Your task to perform on an android device: Check the settings for the Google Photos app Image 0: 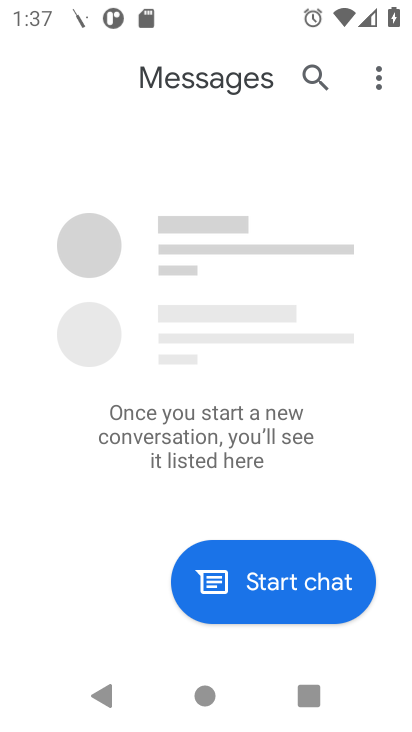
Step 0: press home button
Your task to perform on an android device: Check the settings for the Google Photos app Image 1: 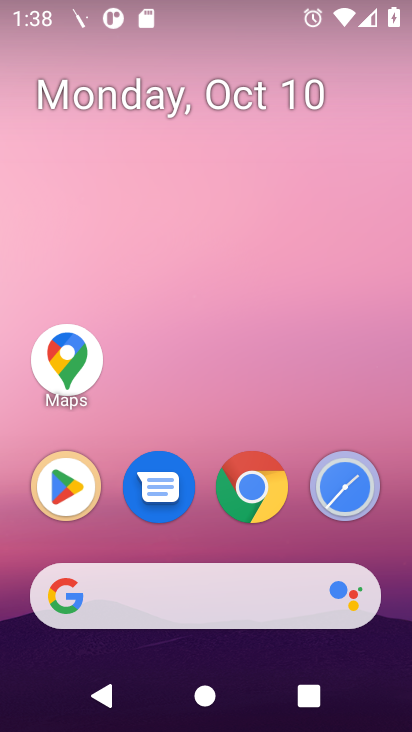
Step 1: click (257, 498)
Your task to perform on an android device: Check the settings for the Google Photos app Image 2: 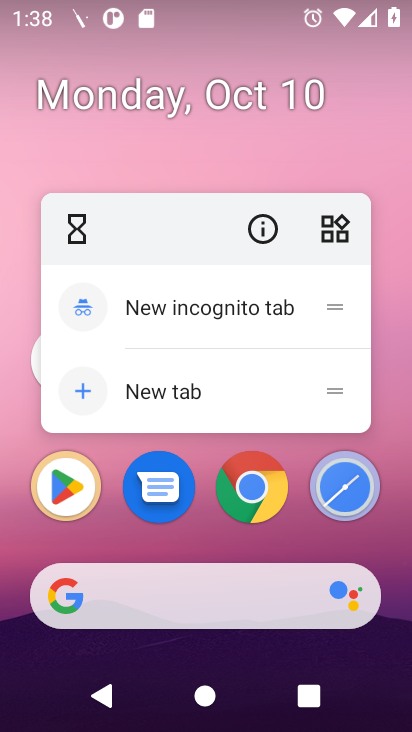
Step 2: drag from (205, 612) to (161, 144)
Your task to perform on an android device: Check the settings for the Google Photos app Image 3: 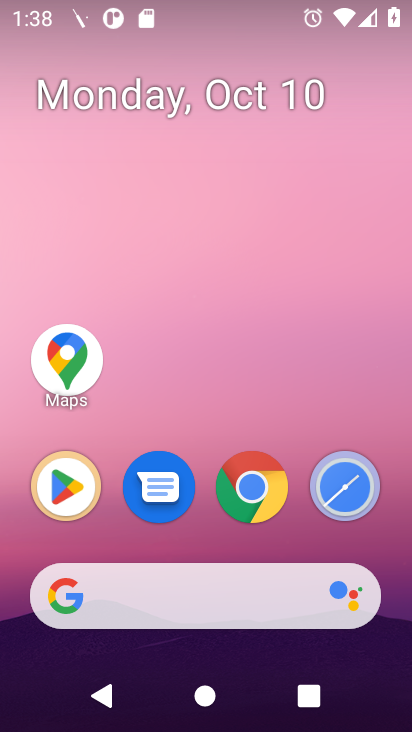
Step 3: drag from (223, 645) to (185, 145)
Your task to perform on an android device: Check the settings for the Google Photos app Image 4: 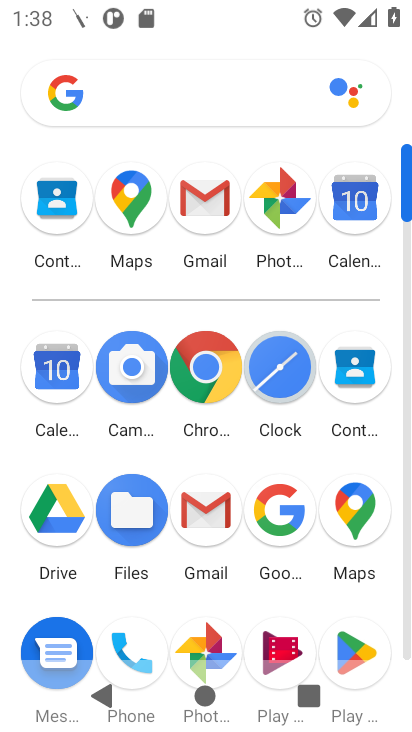
Step 4: drag from (192, 658) to (163, 308)
Your task to perform on an android device: Check the settings for the Google Photos app Image 5: 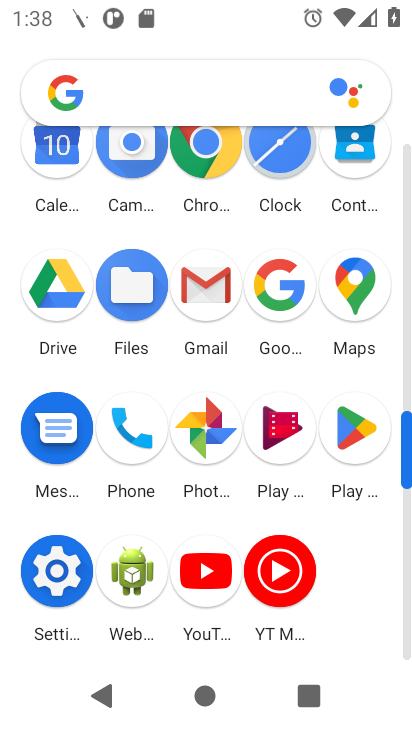
Step 5: click (63, 563)
Your task to perform on an android device: Check the settings for the Google Photos app Image 6: 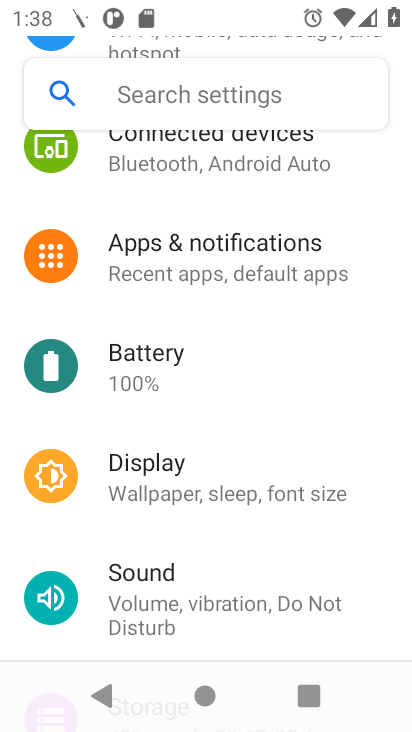
Step 6: click (187, 259)
Your task to perform on an android device: Check the settings for the Google Photos app Image 7: 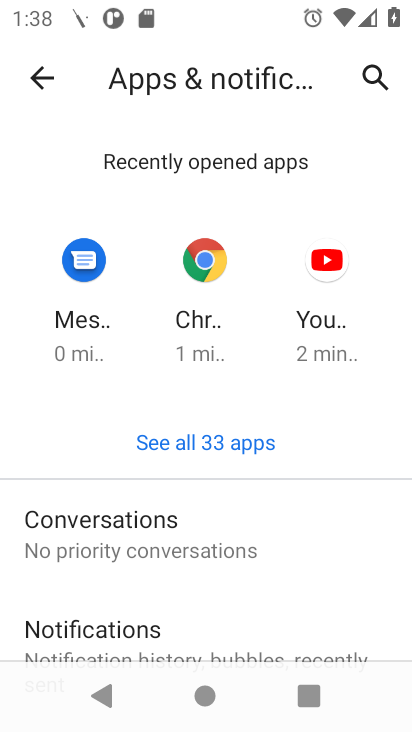
Step 7: click (227, 438)
Your task to perform on an android device: Check the settings for the Google Photos app Image 8: 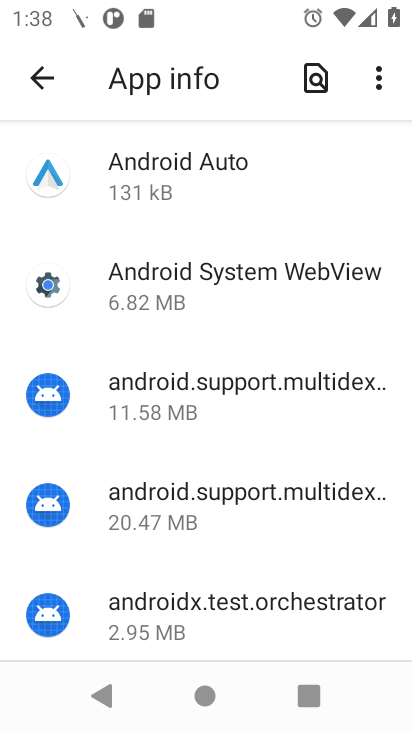
Step 8: drag from (280, 569) to (235, 136)
Your task to perform on an android device: Check the settings for the Google Photos app Image 9: 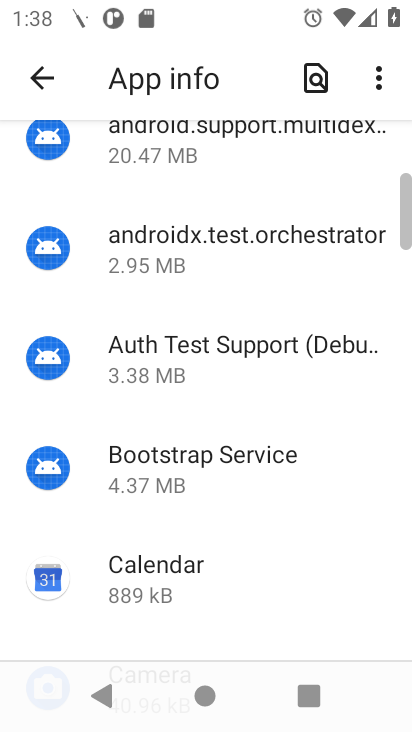
Step 9: drag from (285, 529) to (230, 132)
Your task to perform on an android device: Check the settings for the Google Photos app Image 10: 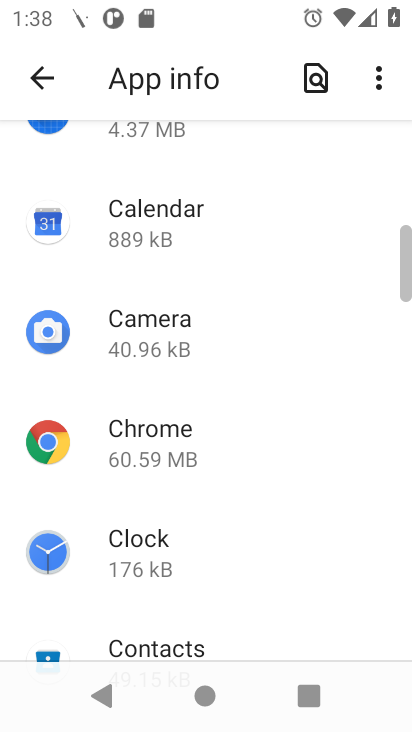
Step 10: drag from (267, 539) to (207, 119)
Your task to perform on an android device: Check the settings for the Google Photos app Image 11: 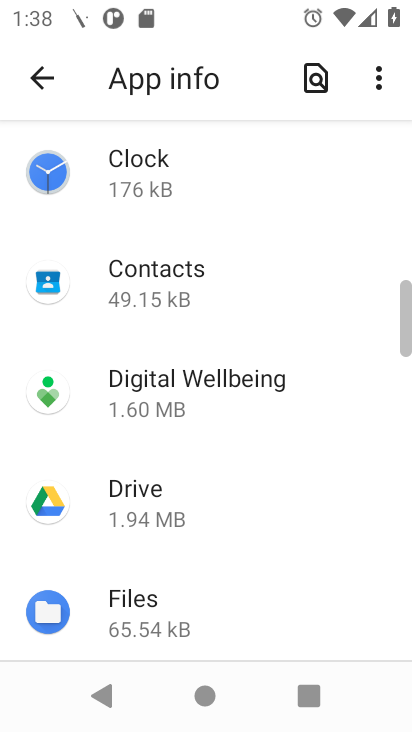
Step 11: drag from (257, 513) to (186, 245)
Your task to perform on an android device: Check the settings for the Google Photos app Image 12: 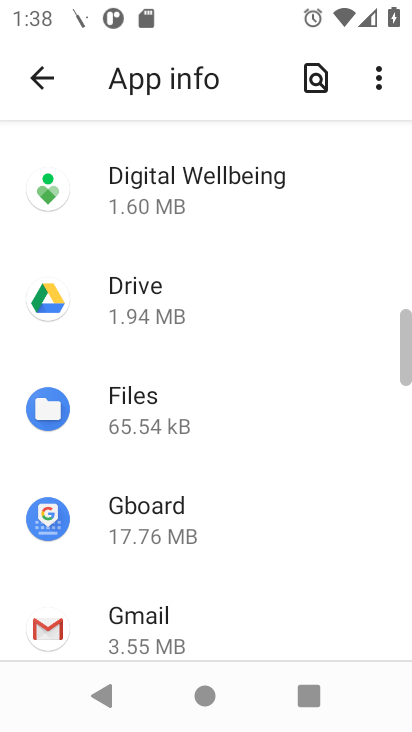
Step 12: drag from (273, 569) to (220, 243)
Your task to perform on an android device: Check the settings for the Google Photos app Image 13: 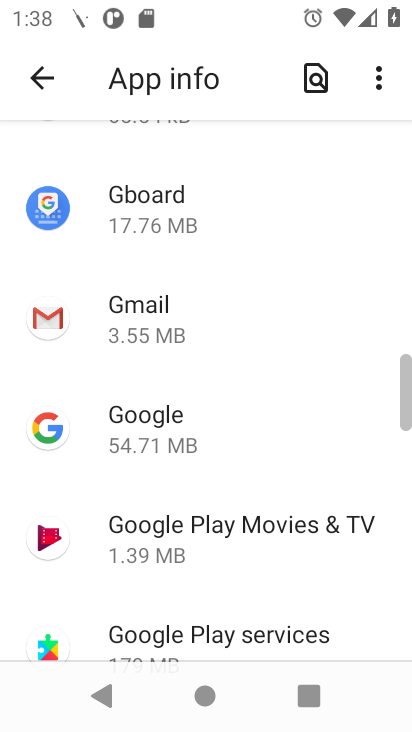
Step 13: drag from (253, 563) to (214, 214)
Your task to perform on an android device: Check the settings for the Google Photos app Image 14: 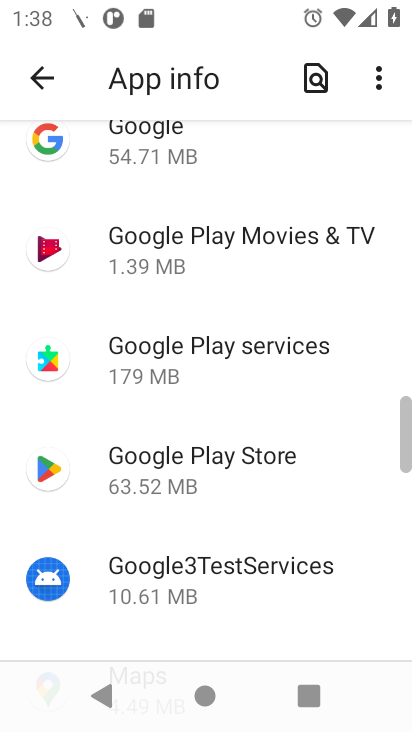
Step 14: drag from (269, 600) to (242, 283)
Your task to perform on an android device: Check the settings for the Google Photos app Image 15: 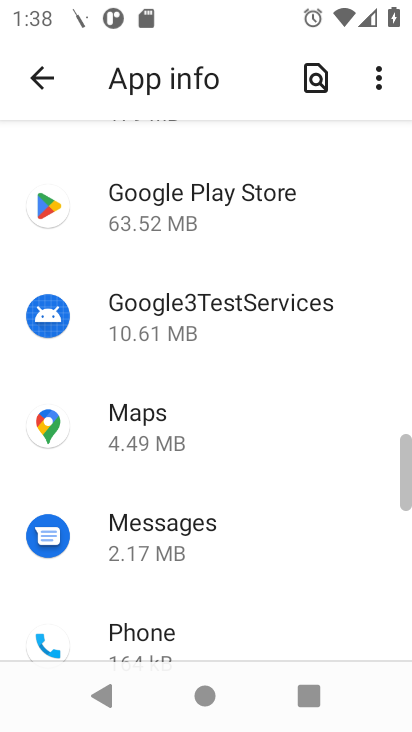
Step 15: drag from (271, 567) to (238, 260)
Your task to perform on an android device: Check the settings for the Google Photos app Image 16: 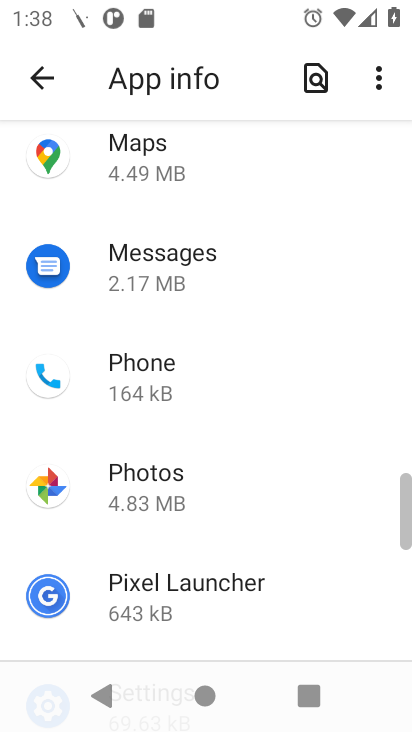
Step 16: click (186, 494)
Your task to perform on an android device: Check the settings for the Google Photos app Image 17: 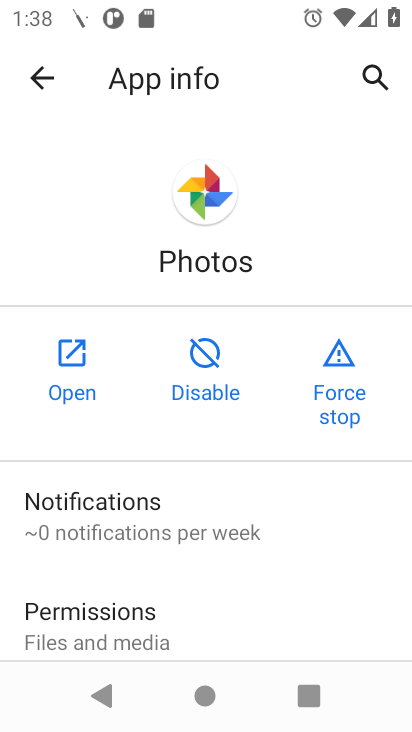
Step 17: click (137, 519)
Your task to perform on an android device: Check the settings for the Google Photos app Image 18: 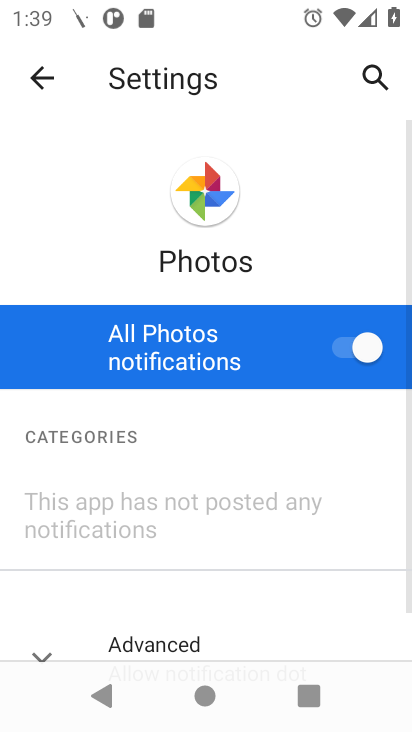
Step 18: click (355, 349)
Your task to perform on an android device: Check the settings for the Google Photos app Image 19: 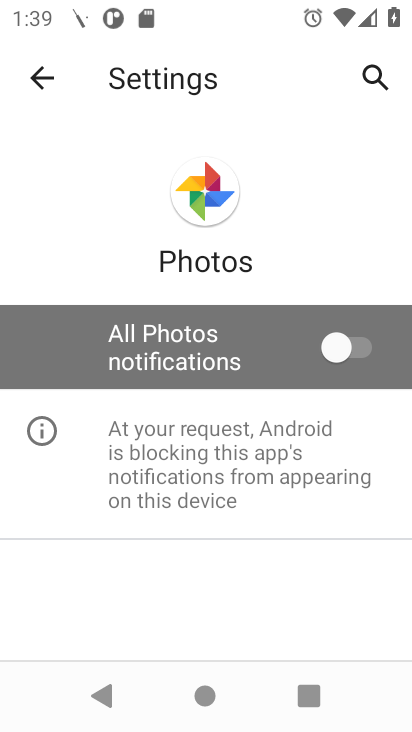
Step 19: click (355, 349)
Your task to perform on an android device: Check the settings for the Google Photos app Image 20: 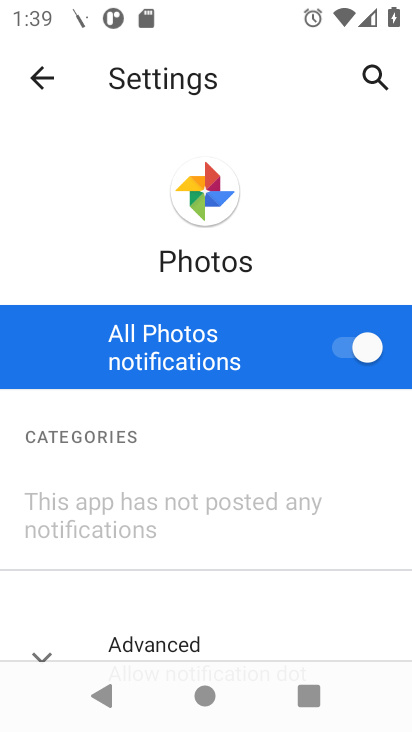
Step 20: drag from (281, 630) to (277, 348)
Your task to perform on an android device: Check the settings for the Google Photos app Image 21: 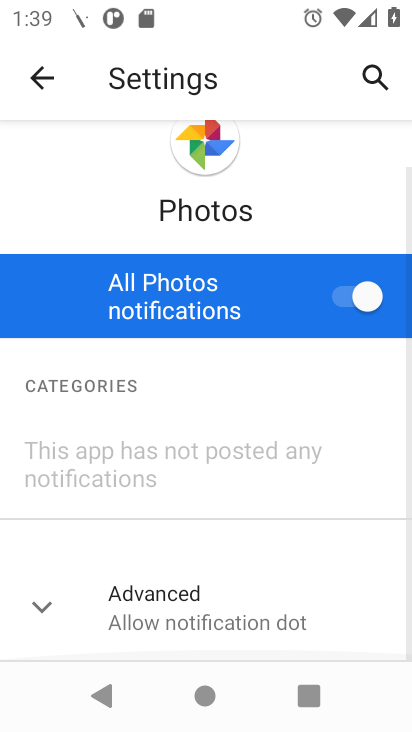
Step 21: click (191, 577)
Your task to perform on an android device: Check the settings for the Google Photos app Image 22: 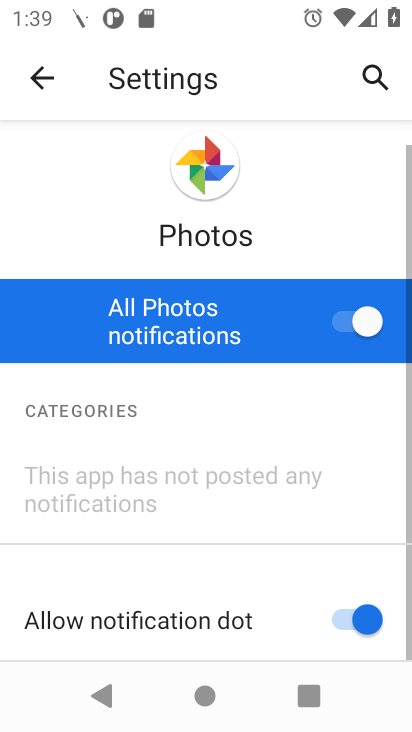
Step 22: task complete